Your task to perform on an android device: Is it going to rain this weekend? Image 0: 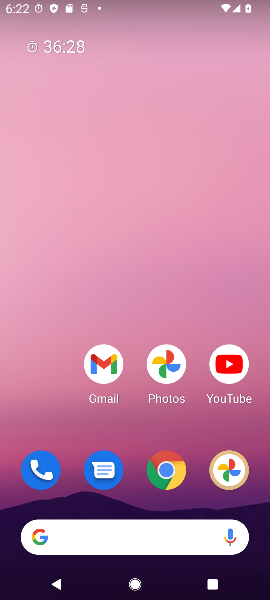
Step 0: press home button
Your task to perform on an android device: Is it going to rain this weekend? Image 1: 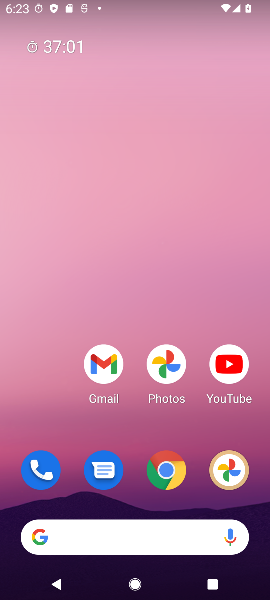
Step 1: click (168, 477)
Your task to perform on an android device: Is it going to rain this weekend? Image 2: 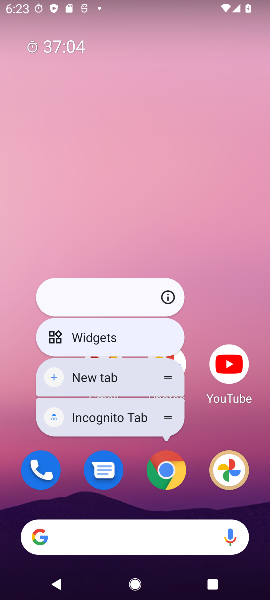
Step 2: click (168, 477)
Your task to perform on an android device: Is it going to rain this weekend? Image 3: 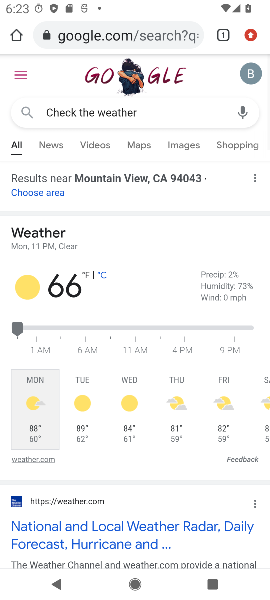
Step 3: click (108, 40)
Your task to perform on an android device: Is it going to rain this weekend? Image 4: 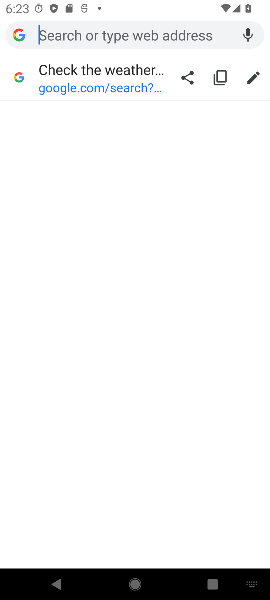
Step 4: type "Is it going to rain this weekend?"
Your task to perform on an android device: Is it going to rain this weekend? Image 5: 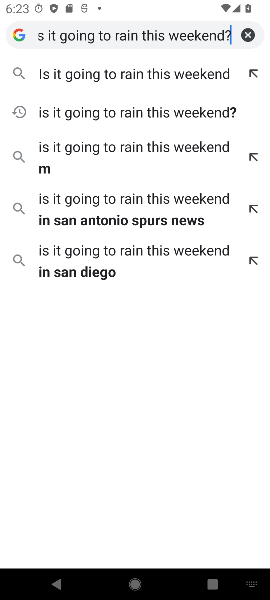
Step 5: type ""
Your task to perform on an android device: Is it going to rain this weekend? Image 6: 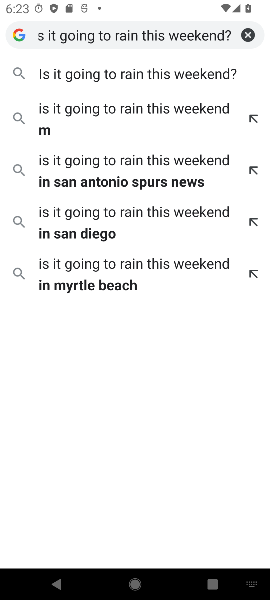
Step 6: click (55, 78)
Your task to perform on an android device: Is it going to rain this weekend? Image 7: 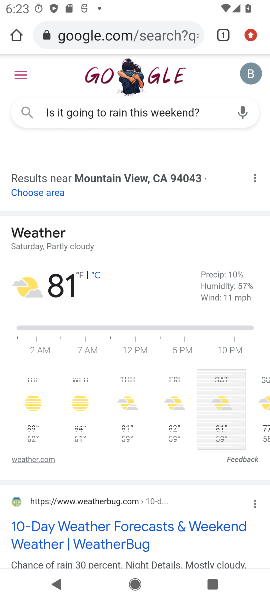
Step 7: task complete